Your task to perform on an android device: turn on wifi Image 0: 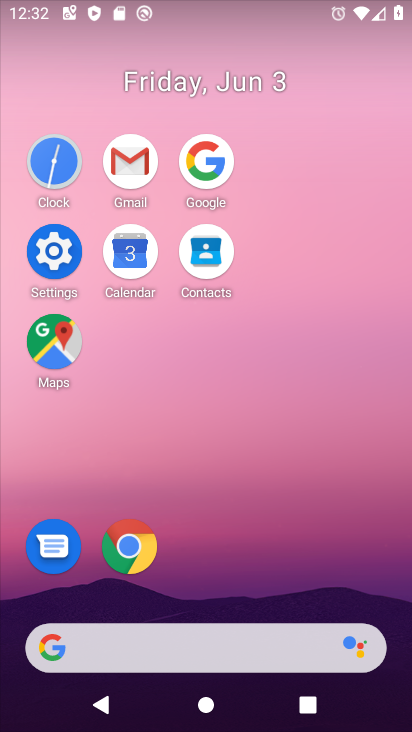
Step 0: click (58, 246)
Your task to perform on an android device: turn on wifi Image 1: 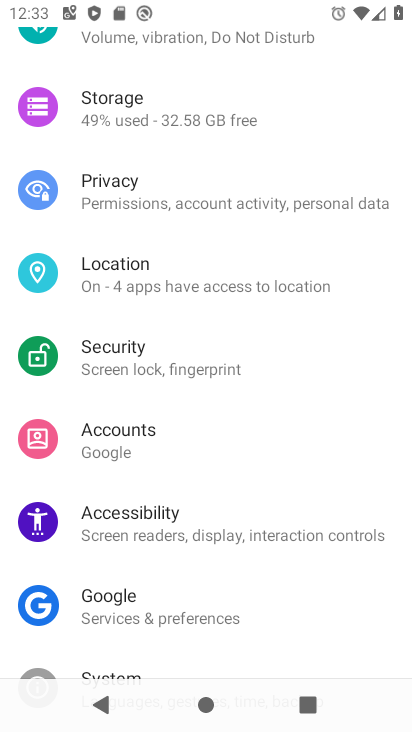
Step 1: drag from (352, 147) to (368, 462)
Your task to perform on an android device: turn on wifi Image 2: 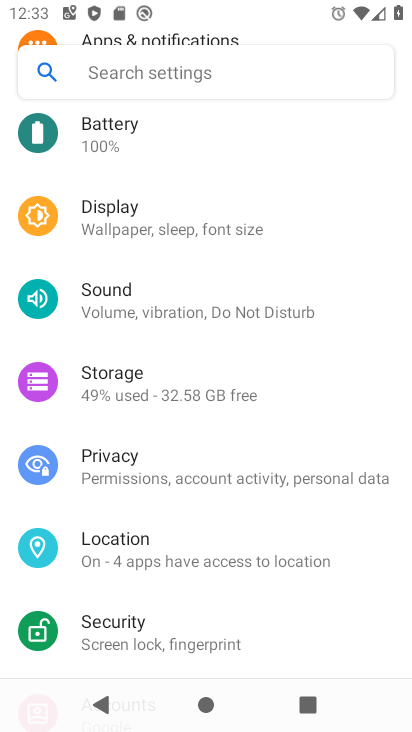
Step 2: drag from (277, 212) to (257, 490)
Your task to perform on an android device: turn on wifi Image 3: 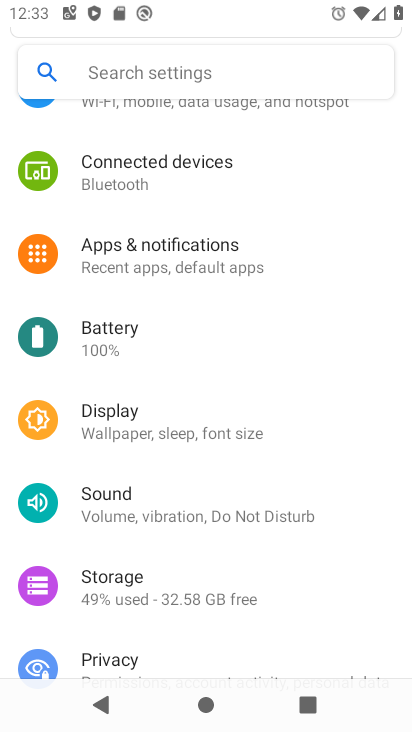
Step 3: drag from (278, 157) to (268, 486)
Your task to perform on an android device: turn on wifi Image 4: 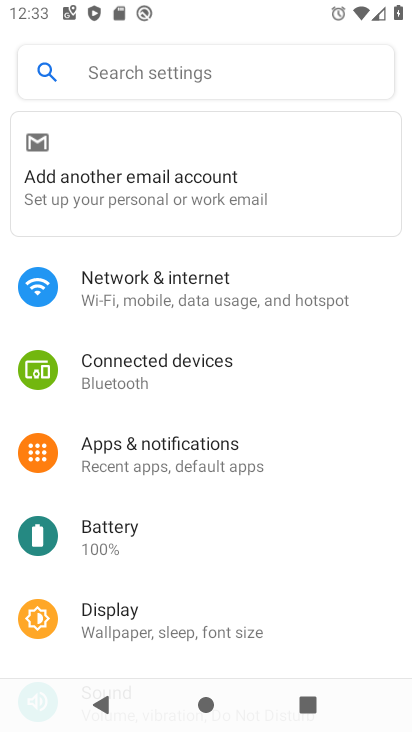
Step 4: click (238, 290)
Your task to perform on an android device: turn on wifi Image 5: 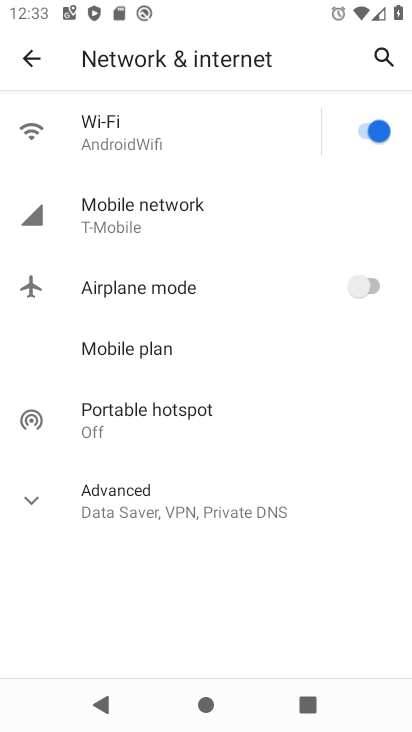
Step 5: task complete